Your task to perform on an android device: turn on data saver in the chrome app Image 0: 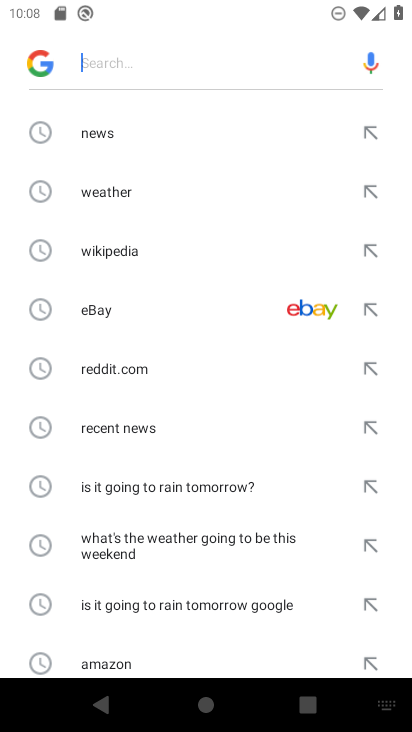
Step 0: press home button
Your task to perform on an android device: turn on data saver in the chrome app Image 1: 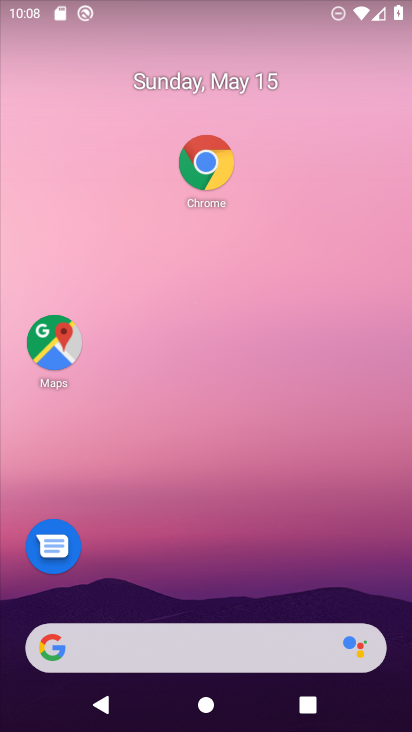
Step 1: drag from (306, 313) to (317, 171)
Your task to perform on an android device: turn on data saver in the chrome app Image 2: 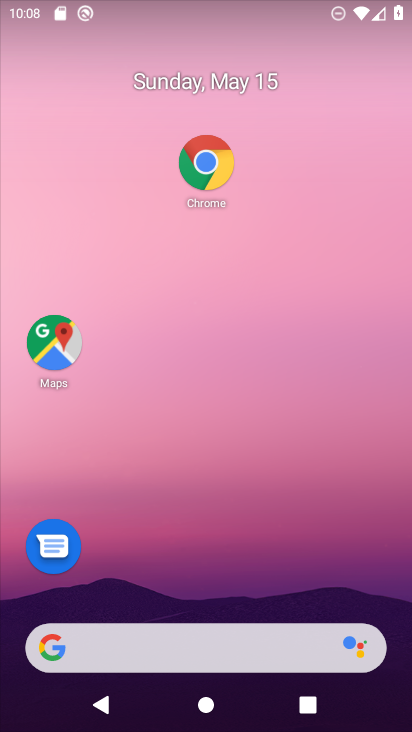
Step 2: click (191, 140)
Your task to perform on an android device: turn on data saver in the chrome app Image 3: 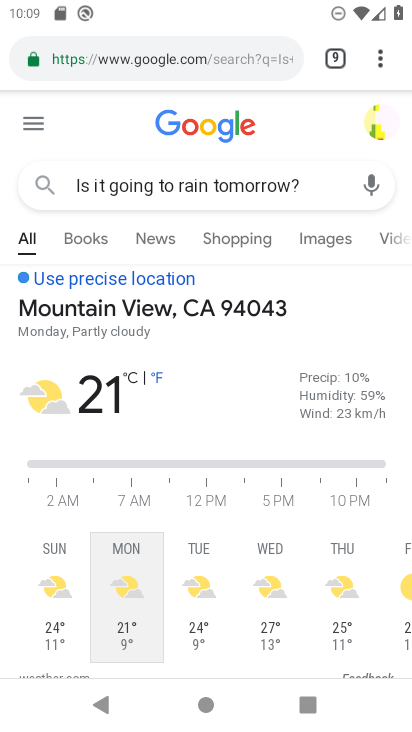
Step 3: click (391, 51)
Your task to perform on an android device: turn on data saver in the chrome app Image 4: 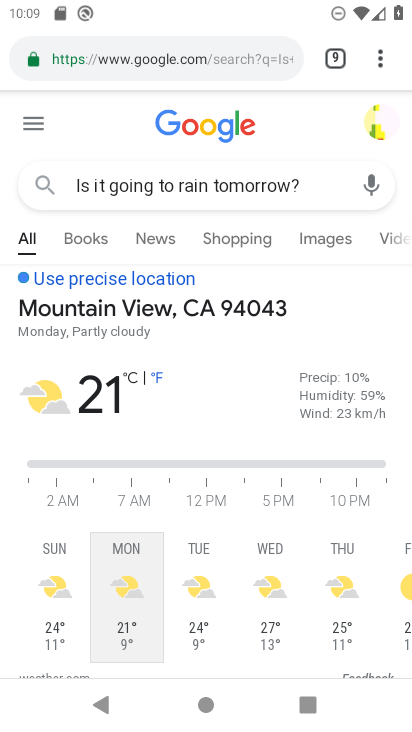
Step 4: click (393, 54)
Your task to perform on an android device: turn on data saver in the chrome app Image 5: 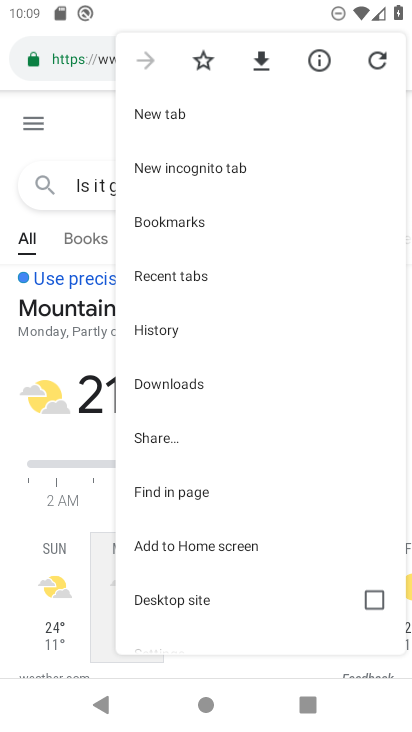
Step 5: drag from (192, 560) to (270, 114)
Your task to perform on an android device: turn on data saver in the chrome app Image 6: 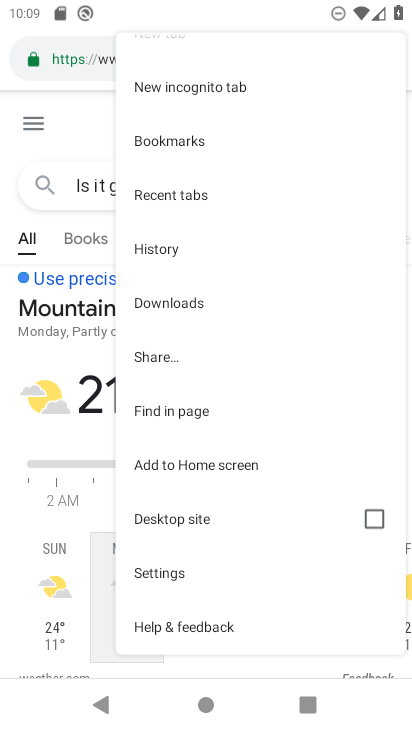
Step 6: click (172, 568)
Your task to perform on an android device: turn on data saver in the chrome app Image 7: 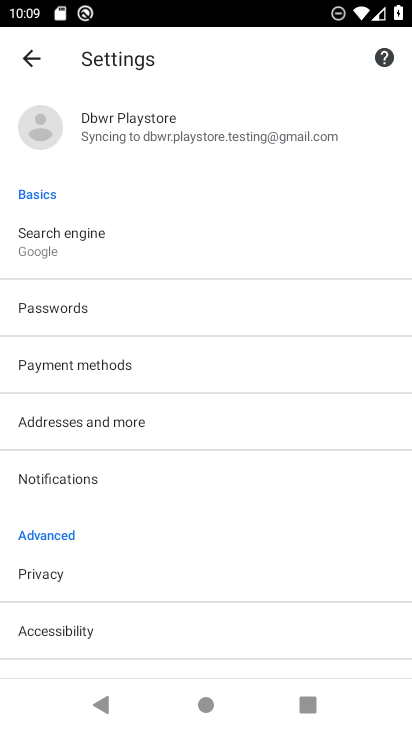
Step 7: drag from (132, 620) to (191, 231)
Your task to perform on an android device: turn on data saver in the chrome app Image 8: 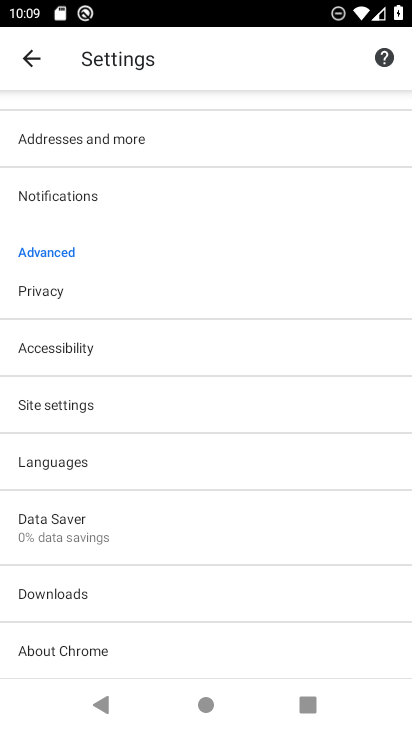
Step 8: click (107, 531)
Your task to perform on an android device: turn on data saver in the chrome app Image 9: 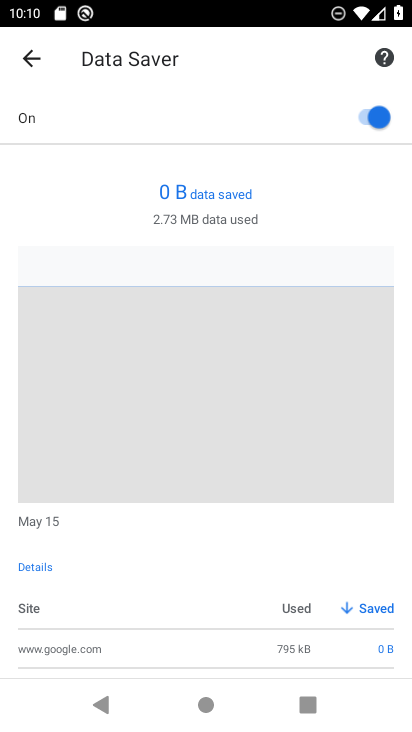
Step 9: task complete